Your task to perform on an android device: turn off data saver in the chrome app Image 0: 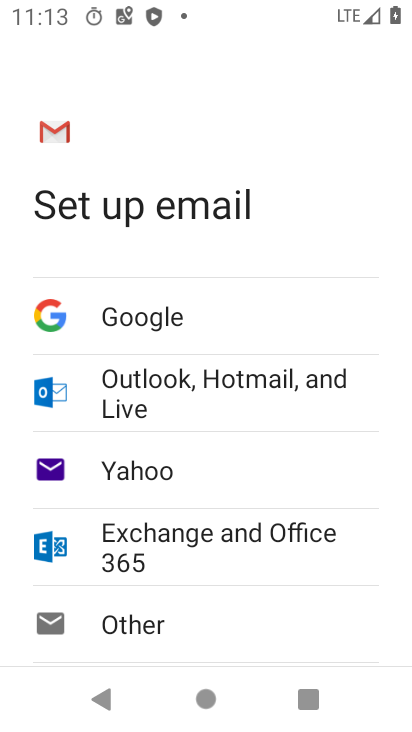
Step 0: press home button
Your task to perform on an android device: turn off data saver in the chrome app Image 1: 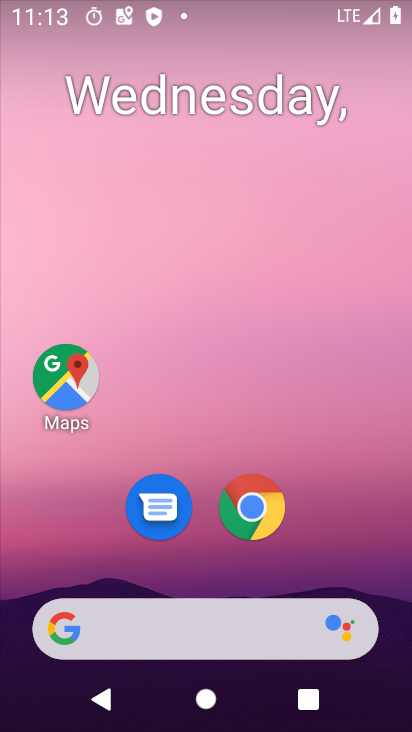
Step 1: click (263, 522)
Your task to perform on an android device: turn off data saver in the chrome app Image 2: 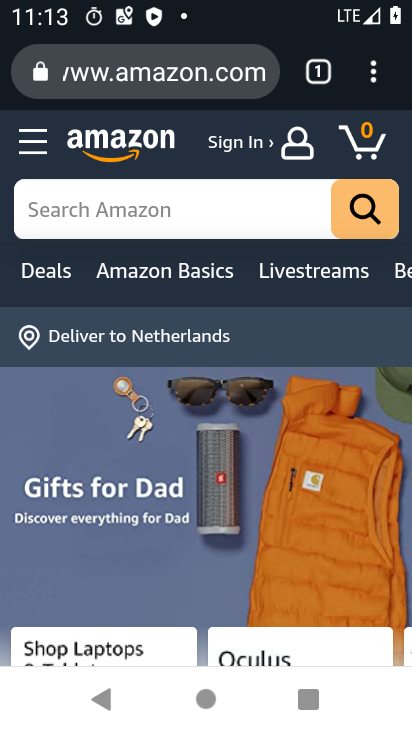
Step 2: click (375, 82)
Your task to perform on an android device: turn off data saver in the chrome app Image 3: 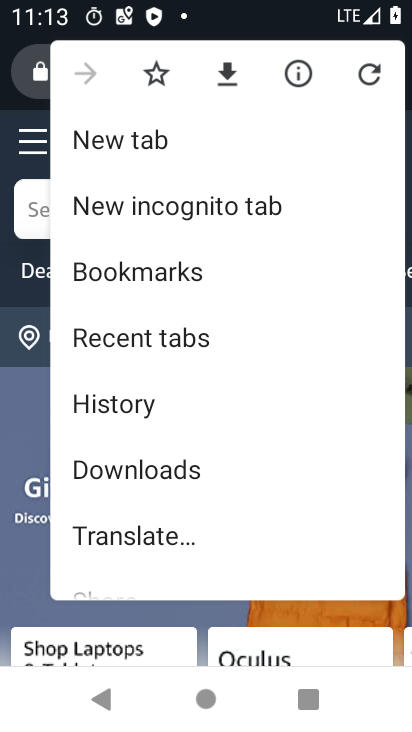
Step 3: drag from (109, 536) to (103, 173)
Your task to perform on an android device: turn off data saver in the chrome app Image 4: 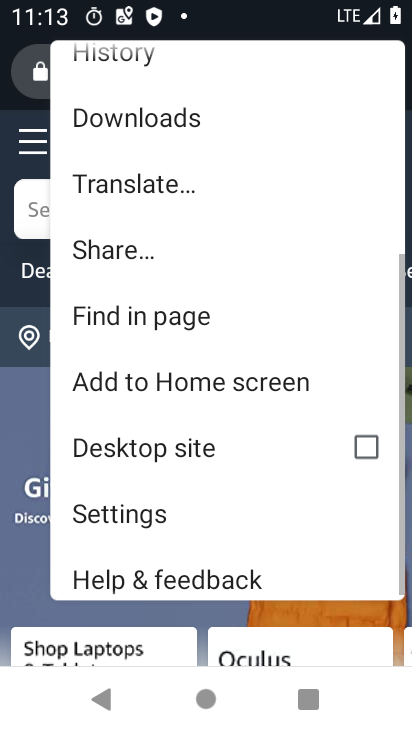
Step 4: click (116, 510)
Your task to perform on an android device: turn off data saver in the chrome app Image 5: 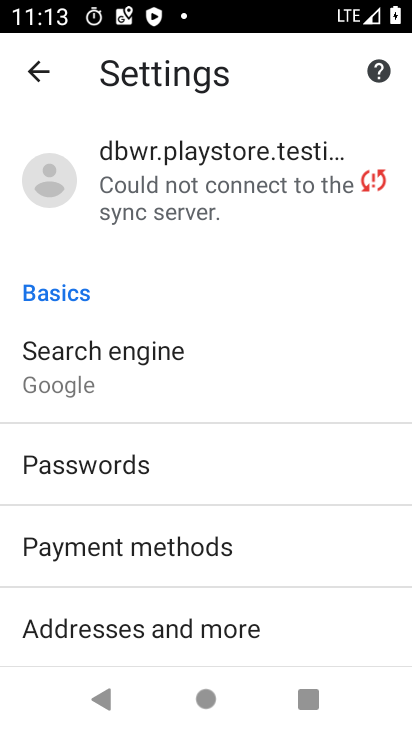
Step 5: drag from (127, 642) to (145, 214)
Your task to perform on an android device: turn off data saver in the chrome app Image 6: 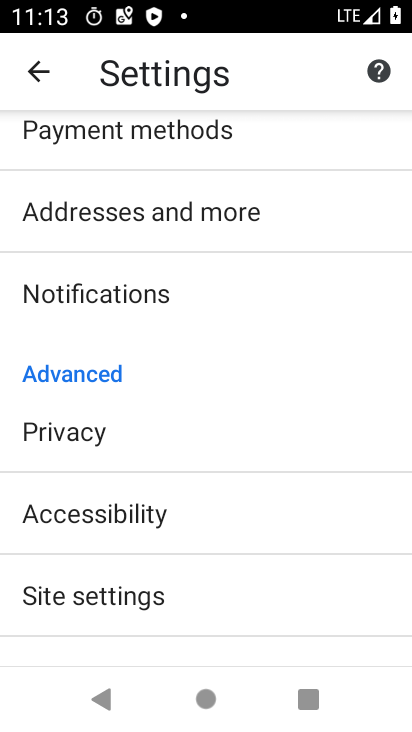
Step 6: drag from (73, 585) to (95, 274)
Your task to perform on an android device: turn off data saver in the chrome app Image 7: 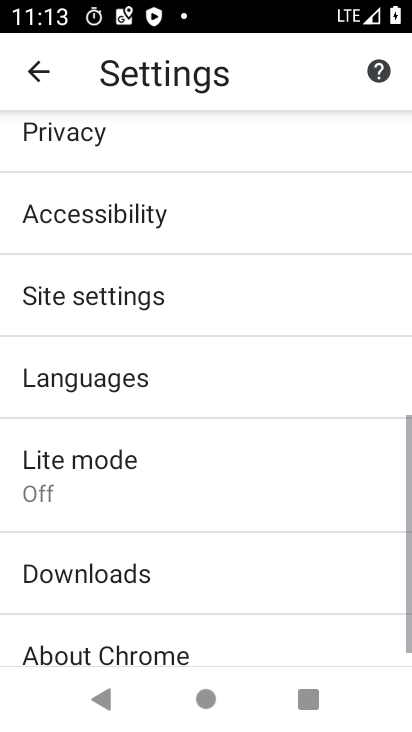
Step 7: click (101, 467)
Your task to perform on an android device: turn off data saver in the chrome app Image 8: 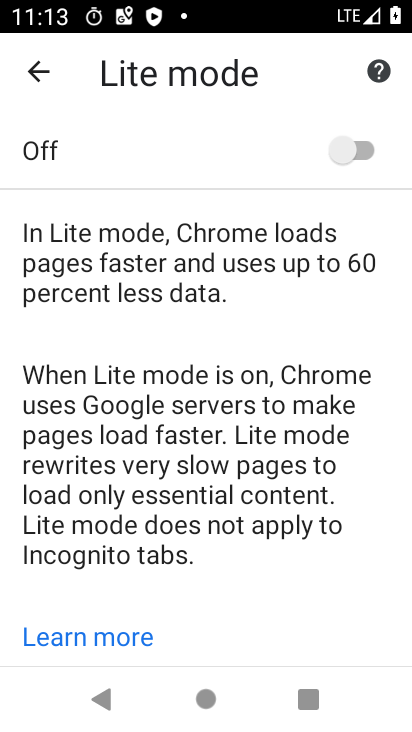
Step 8: task complete